Your task to perform on an android device: toggle show notifications on the lock screen Image 0: 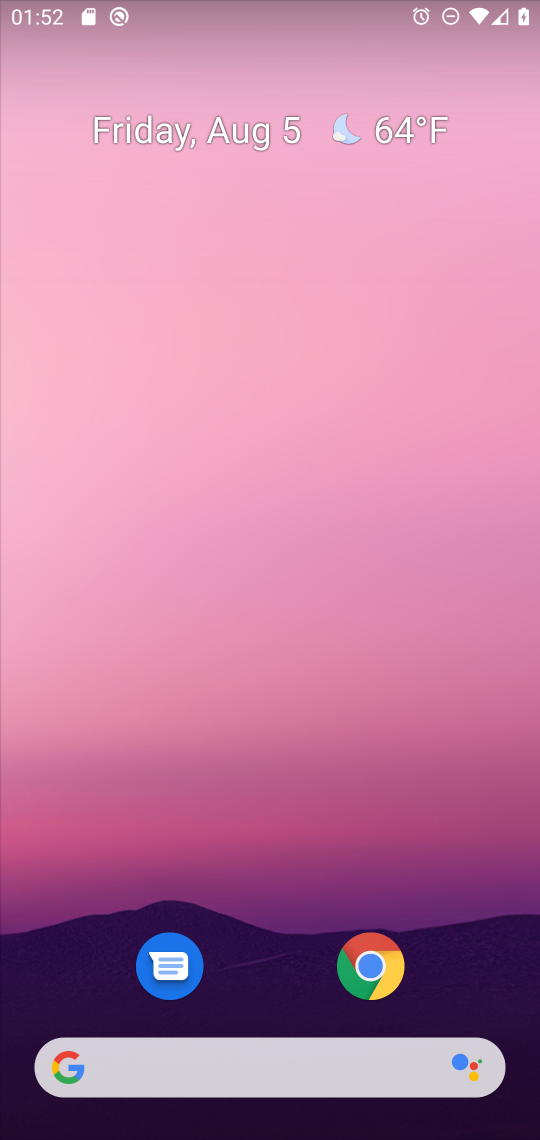
Step 0: drag from (264, 923) to (344, 93)
Your task to perform on an android device: toggle show notifications on the lock screen Image 1: 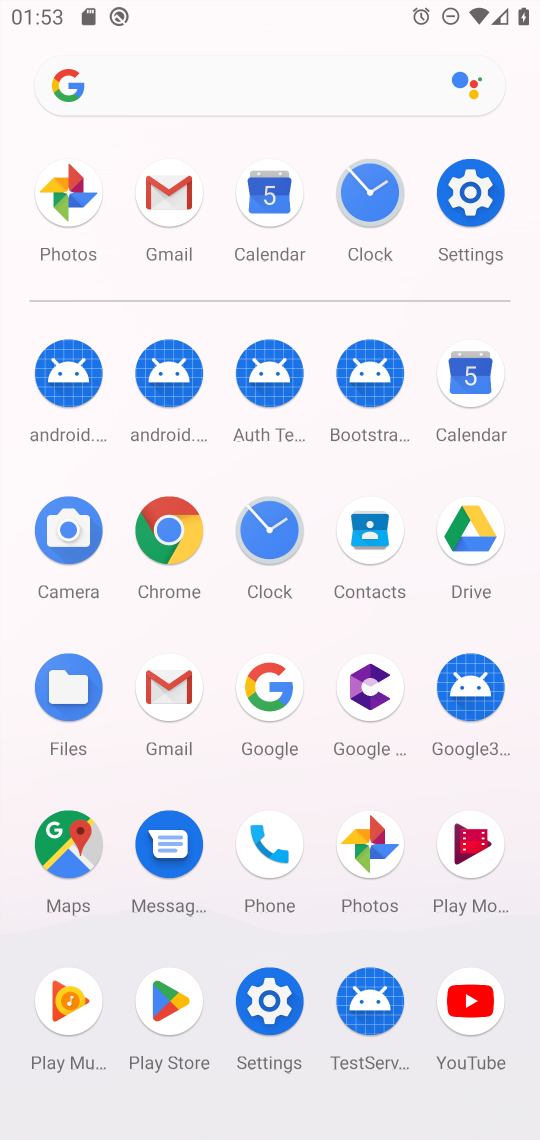
Step 1: click (465, 186)
Your task to perform on an android device: toggle show notifications on the lock screen Image 2: 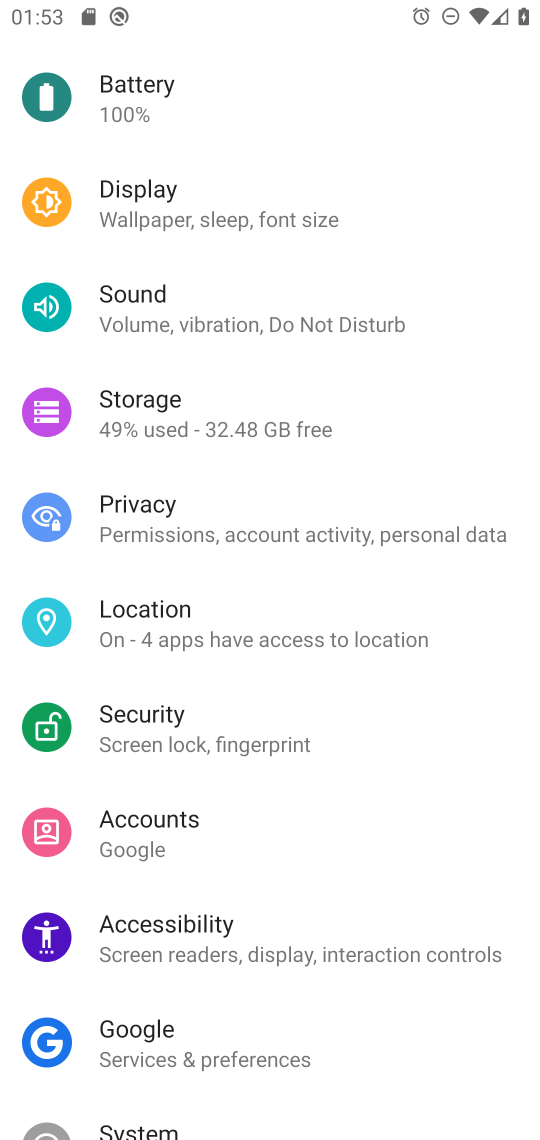
Step 2: drag from (321, 180) to (271, 976)
Your task to perform on an android device: toggle show notifications on the lock screen Image 3: 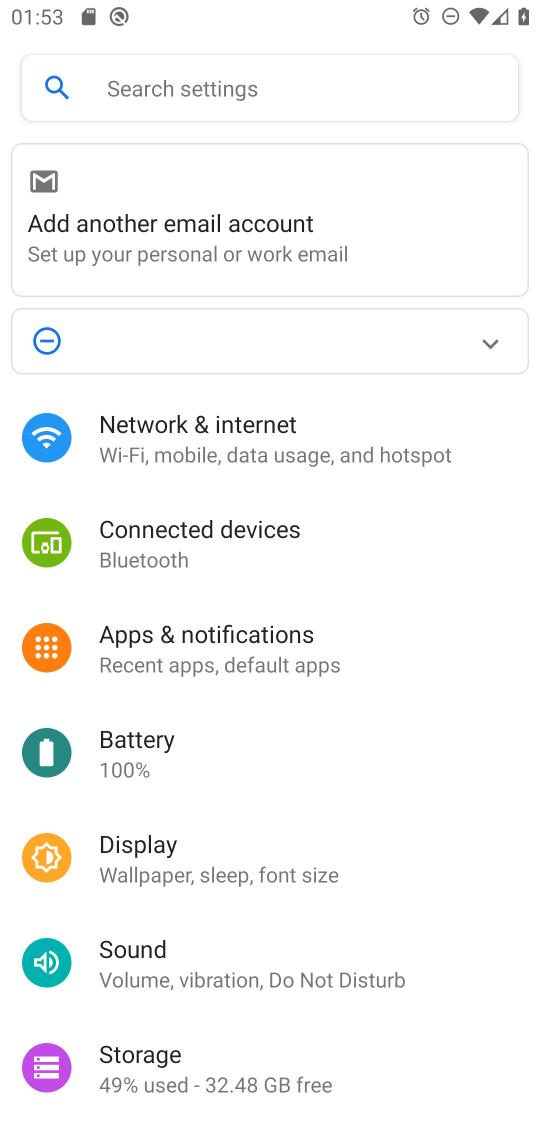
Step 3: click (277, 651)
Your task to perform on an android device: toggle show notifications on the lock screen Image 4: 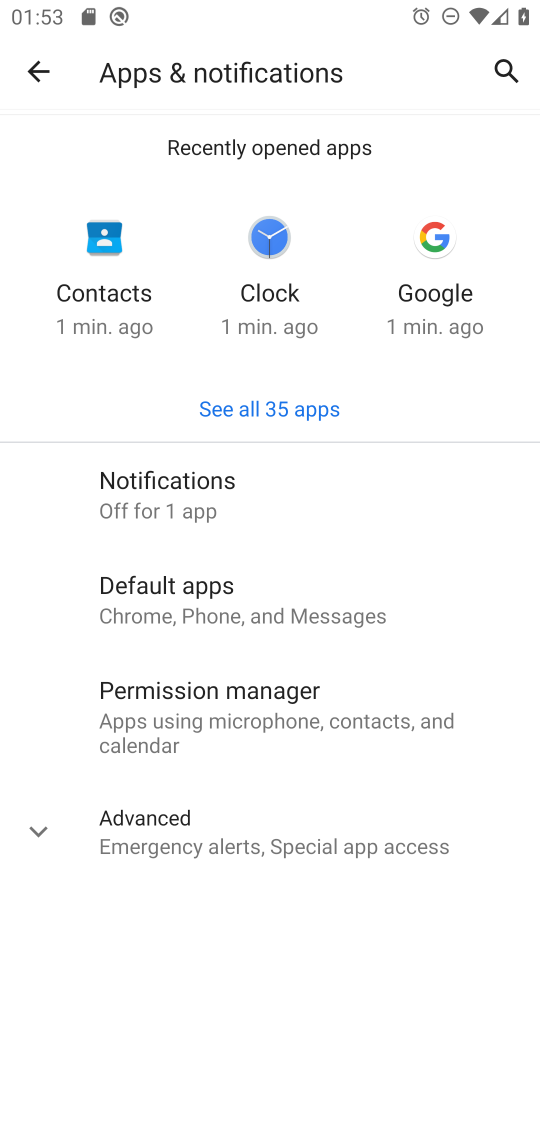
Step 4: click (201, 489)
Your task to perform on an android device: toggle show notifications on the lock screen Image 5: 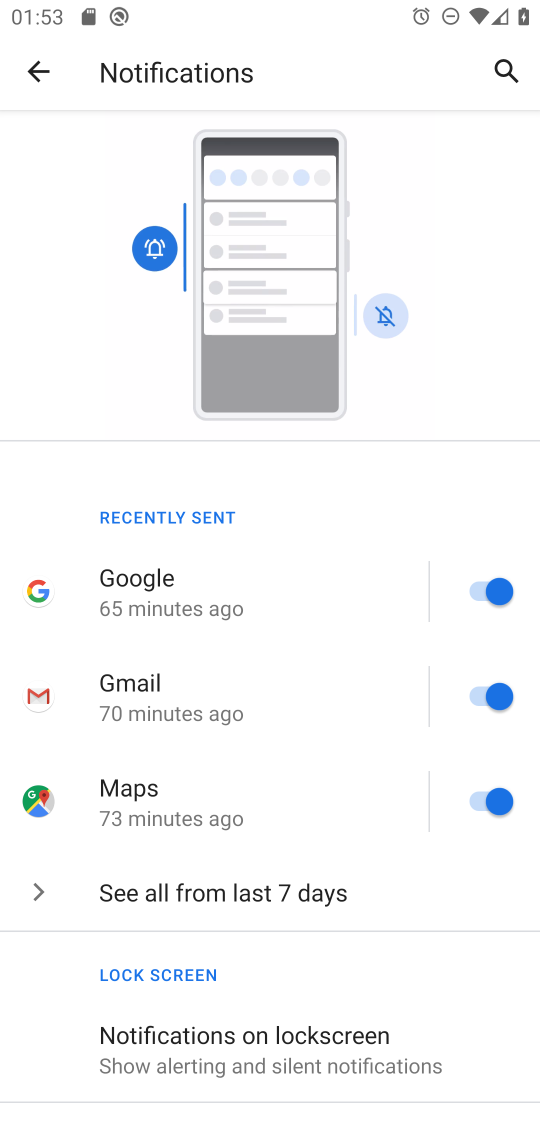
Step 5: drag from (303, 783) to (363, 191)
Your task to perform on an android device: toggle show notifications on the lock screen Image 6: 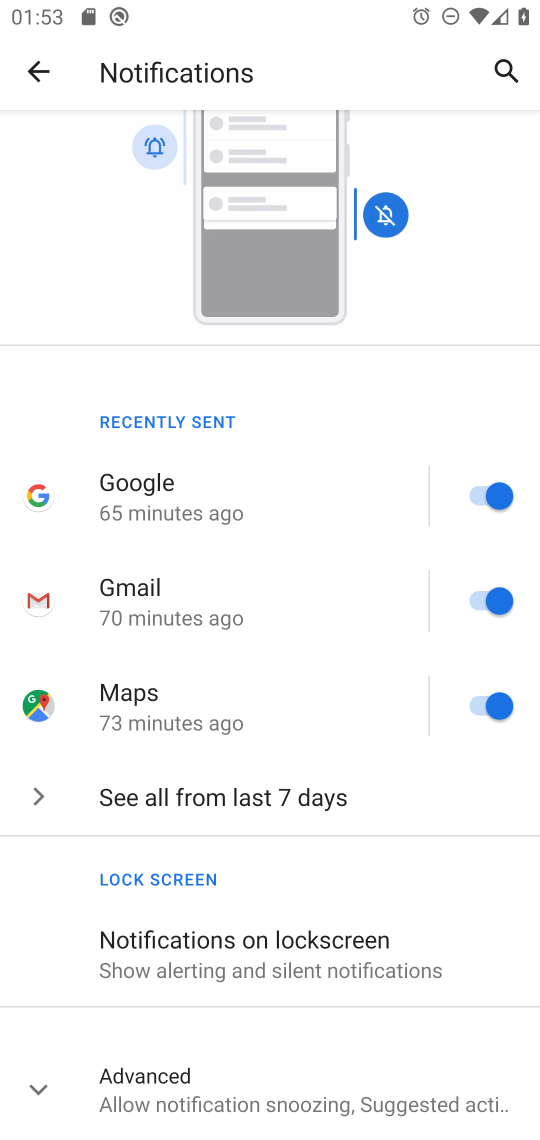
Step 6: click (276, 940)
Your task to perform on an android device: toggle show notifications on the lock screen Image 7: 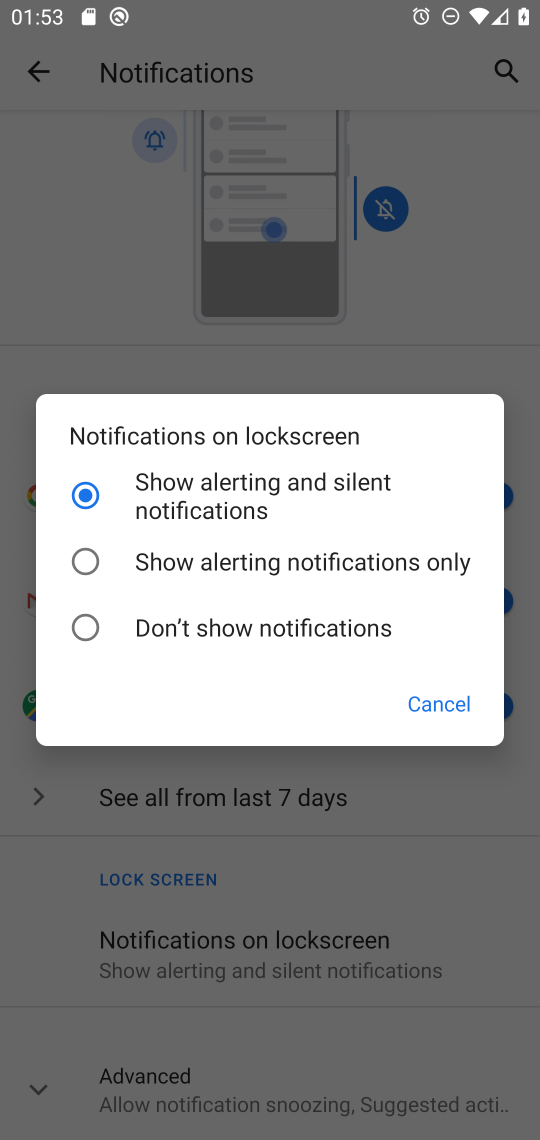
Step 7: click (79, 612)
Your task to perform on an android device: toggle show notifications on the lock screen Image 8: 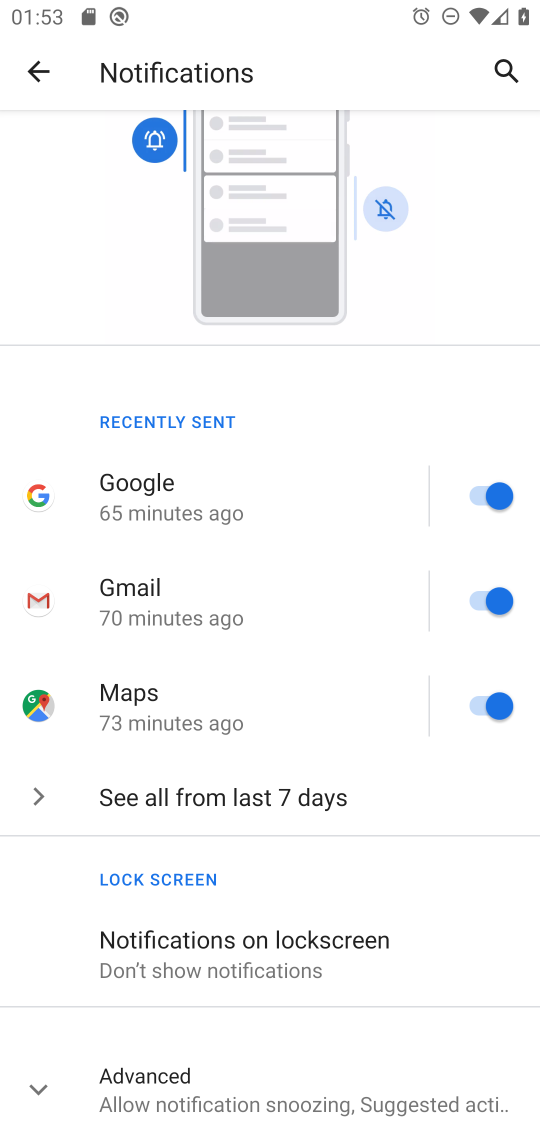
Step 8: task complete